Your task to perform on an android device: Do I have any events this weekend? Image 0: 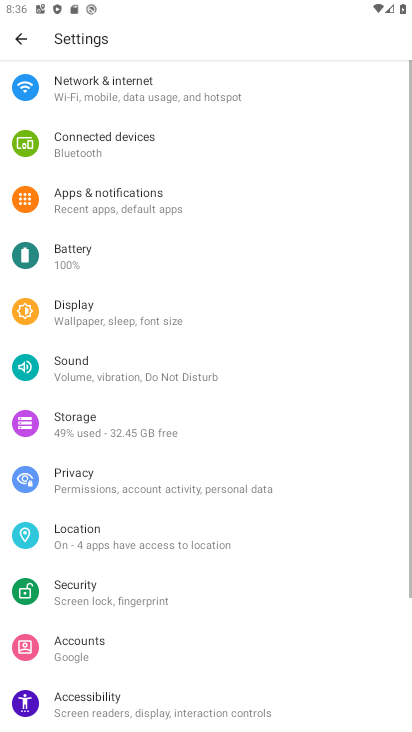
Step 0: press home button
Your task to perform on an android device: Do I have any events this weekend? Image 1: 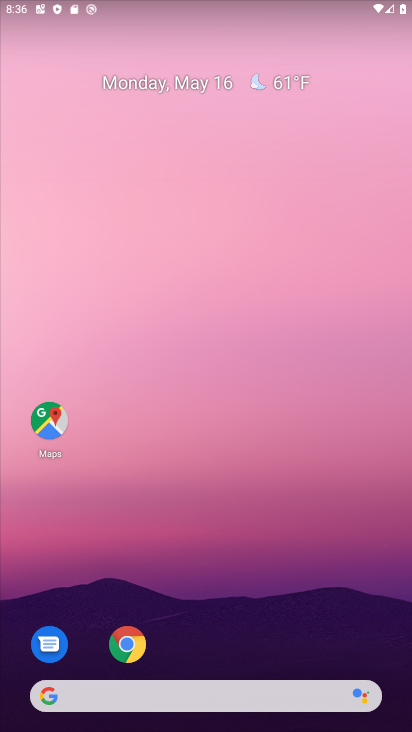
Step 1: drag from (182, 625) to (177, 137)
Your task to perform on an android device: Do I have any events this weekend? Image 2: 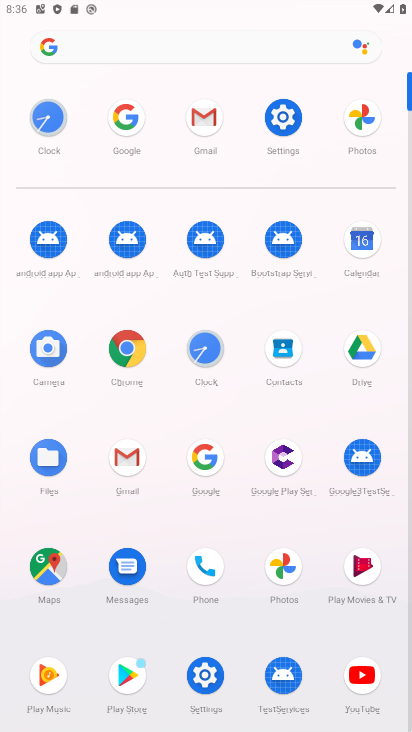
Step 2: click (362, 235)
Your task to perform on an android device: Do I have any events this weekend? Image 3: 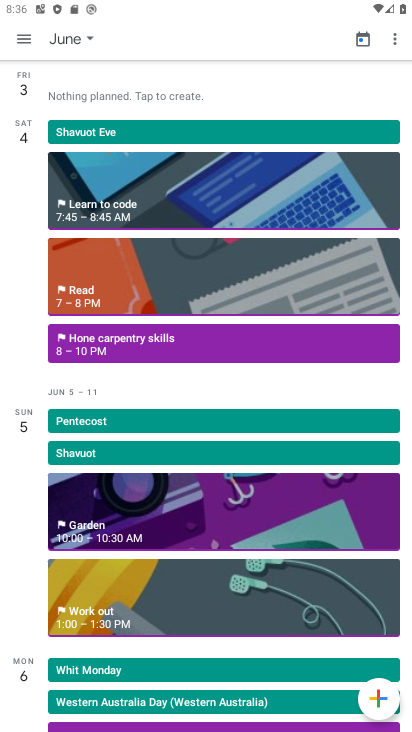
Step 3: click (87, 35)
Your task to perform on an android device: Do I have any events this weekend? Image 4: 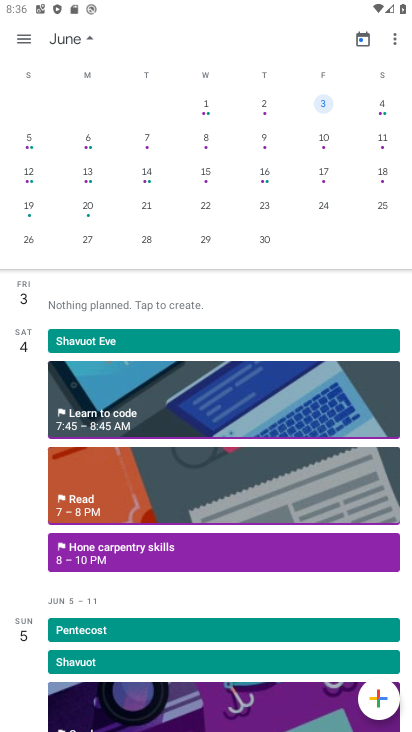
Step 4: drag from (29, 248) to (406, 226)
Your task to perform on an android device: Do I have any events this weekend? Image 5: 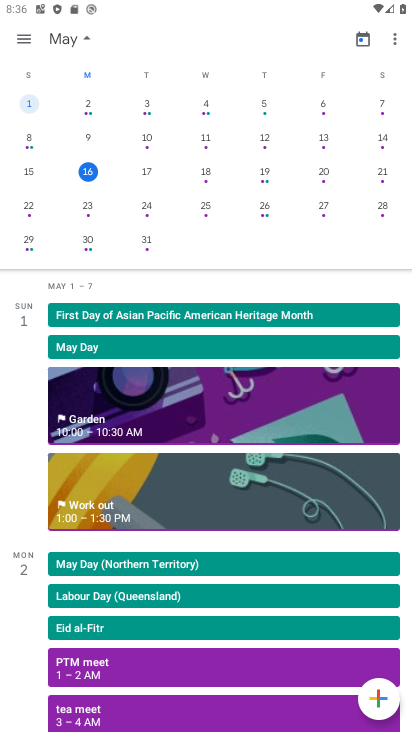
Step 5: click (259, 173)
Your task to perform on an android device: Do I have any events this weekend? Image 6: 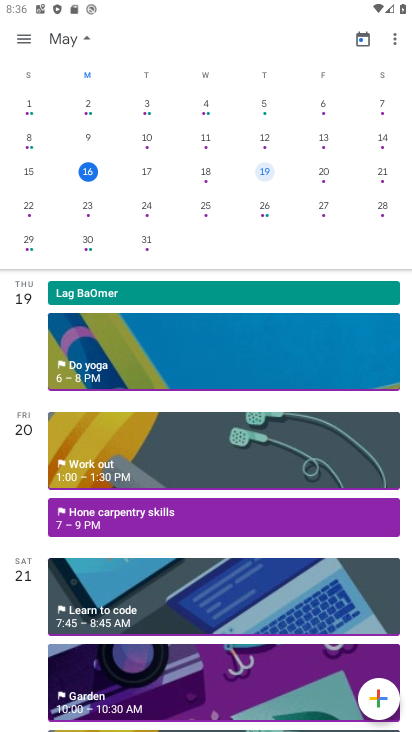
Step 6: task complete